Your task to perform on an android device: What is the recent news? Image 0: 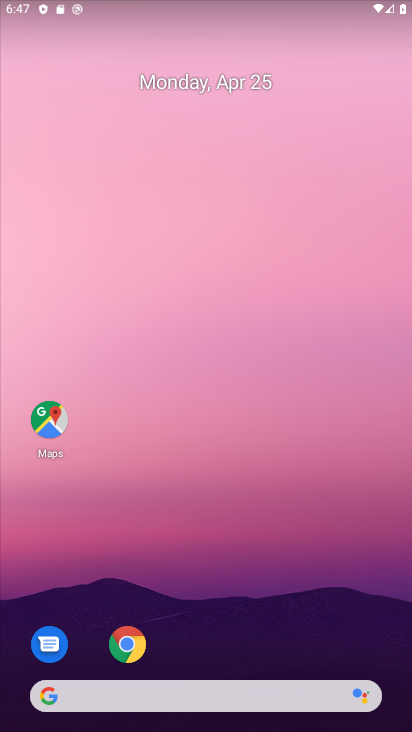
Step 0: drag from (233, 646) to (303, 133)
Your task to perform on an android device: What is the recent news? Image 1: 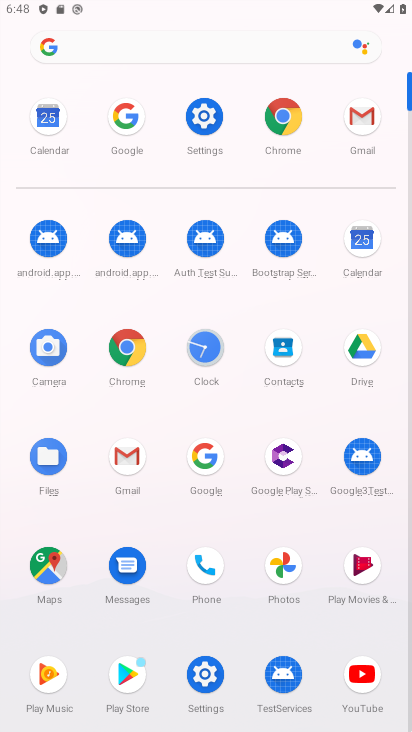
Step 1: click (128, 127)
Your task to perform on an android device: What is the recent news? Image 2: 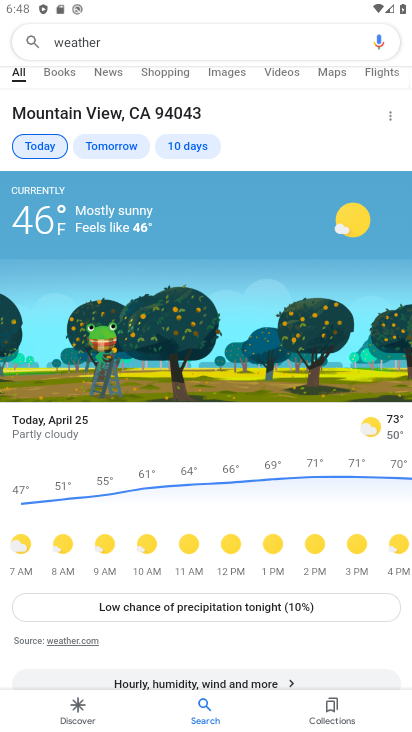
Step 2: click (167, 38)
Your task to perform on an android device: What is the recent news? Image 3: 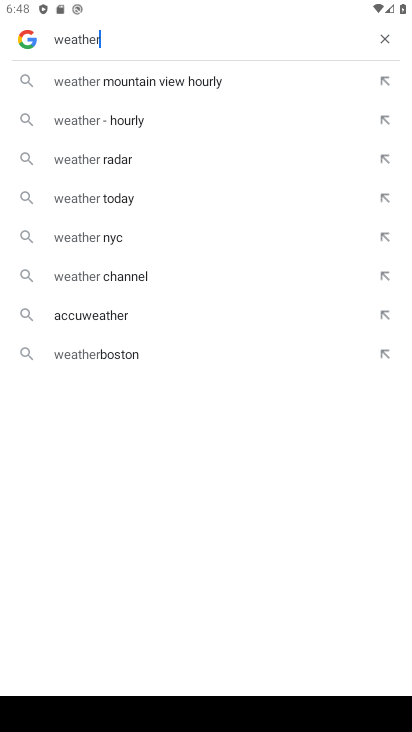
Step 3: click (387, 43)
Your task to perform on an android device: What is the recent news? Image 4: 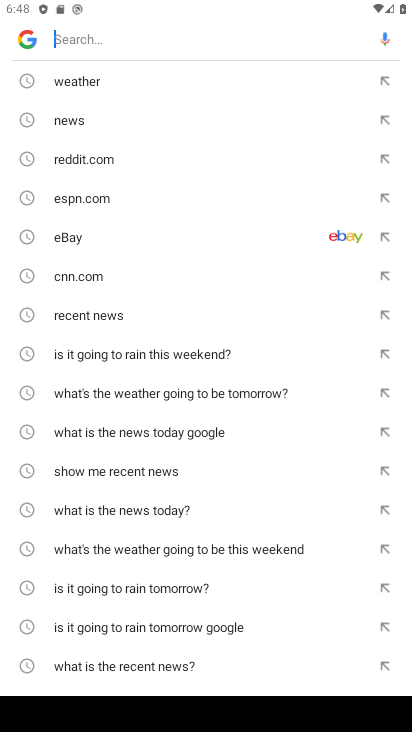
Step 4: click (104, 317)
Your task to perform on an android device: What is the recent news? Image 5: 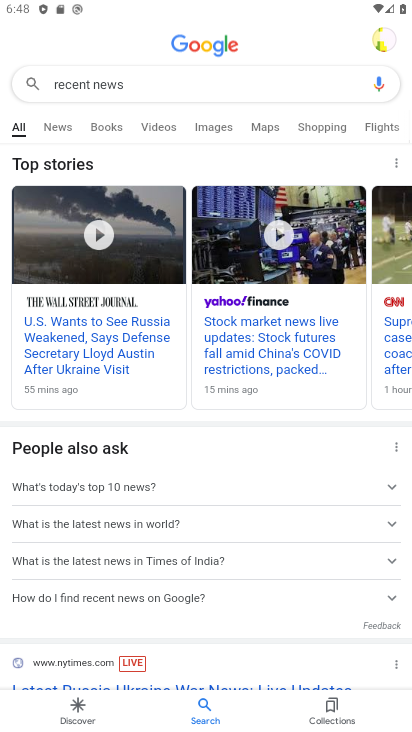
Step 5: click (62, 122)
Your task to perform on an android device: What is the recent news? Image 6: 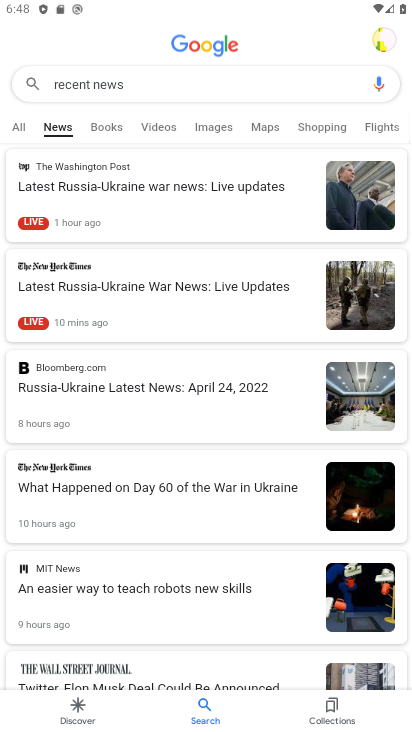
Step 6: task complete